Your task to perform on an android device: Show me popular videos on Youtube Image 0: 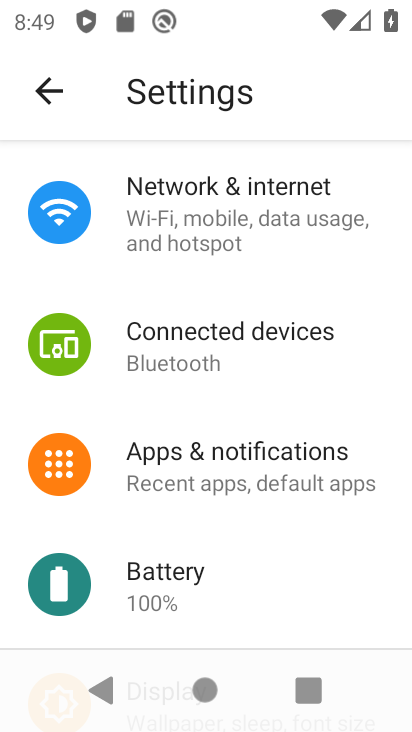
Step 0: press home button
Your task to perform on an android device: Show me popular videos on Youtube Image 1: 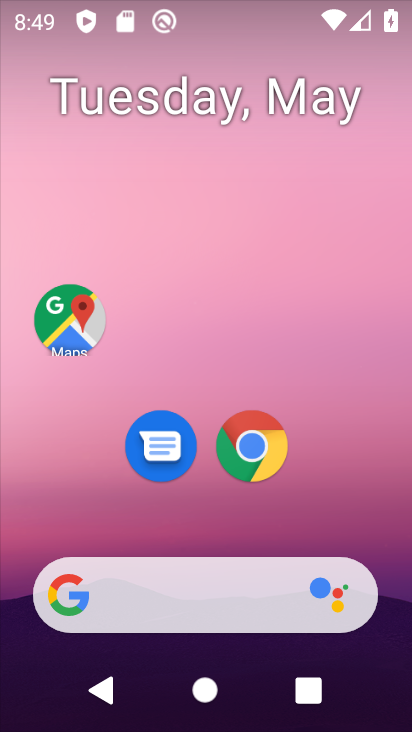
Step 1: drag from (400, 550) to (385, 199)
Your task to perform on an android device: Show me popular videos on Youtube Image 2: 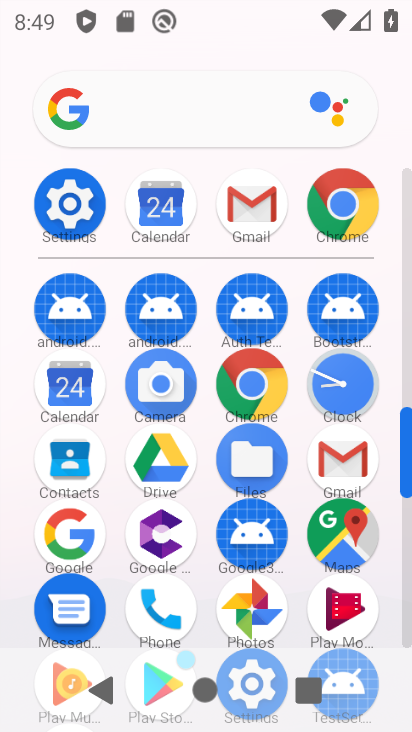
Step 2: drag from (391, 651) to (394, 369)
Your task to perform on an android device: Show me popular videos on Youtube Image 3: 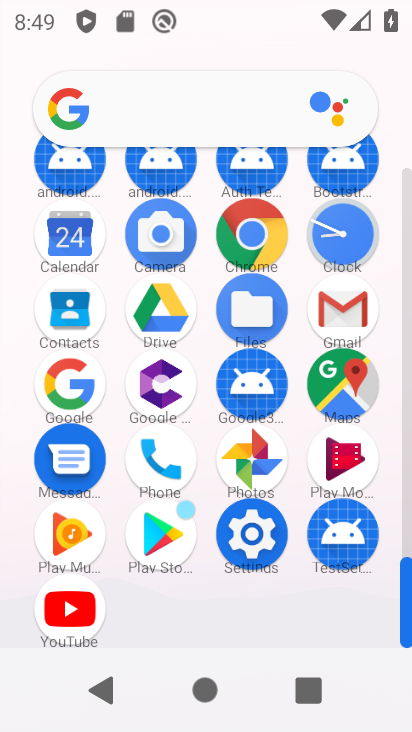
Step 3: click (59, 614)
Your task to perform on an android device: Show me popular videos on Youtube Image 4: 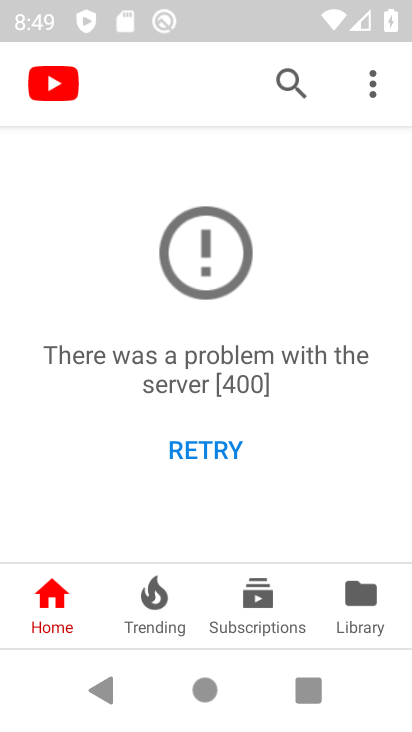
Step 4: task complete